Your task to perform on an android device: Clear the shopping cart on ebay. Image 0: 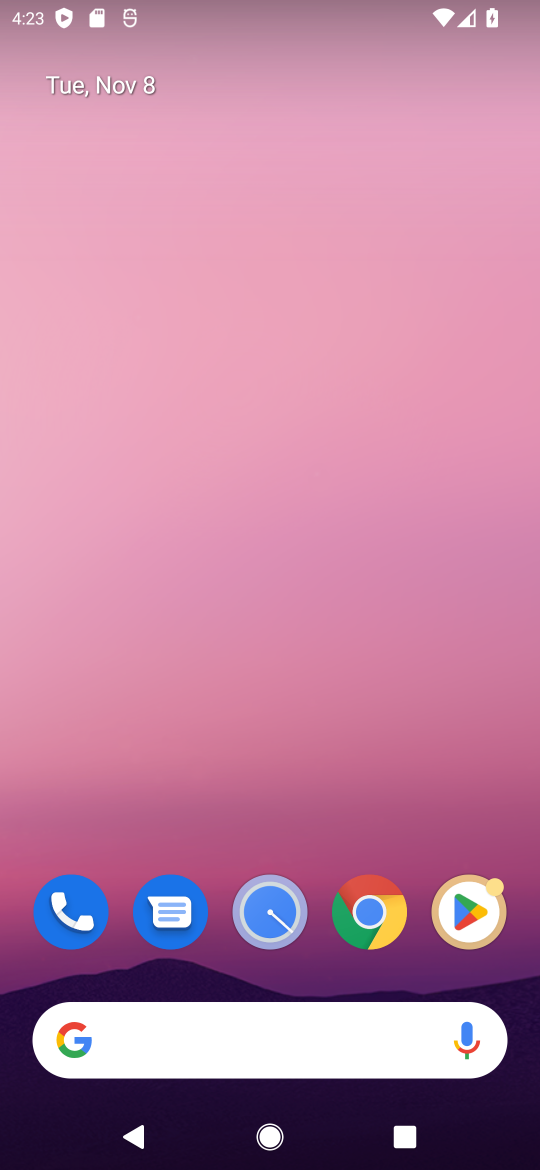
Step 0: click (364, 930)
Your task to perform on an android device: Clear the shopping cart on ebay. Image 1: 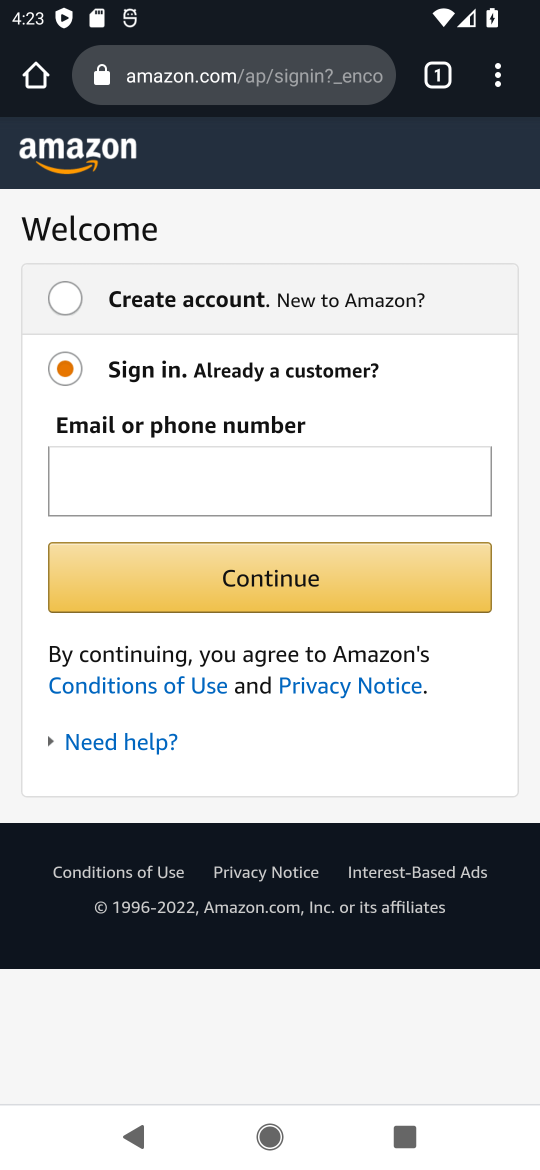
Step 1: click (439, 78)
Your task to perform on an android device: Clear the shopping cart on ebay. Image 2: 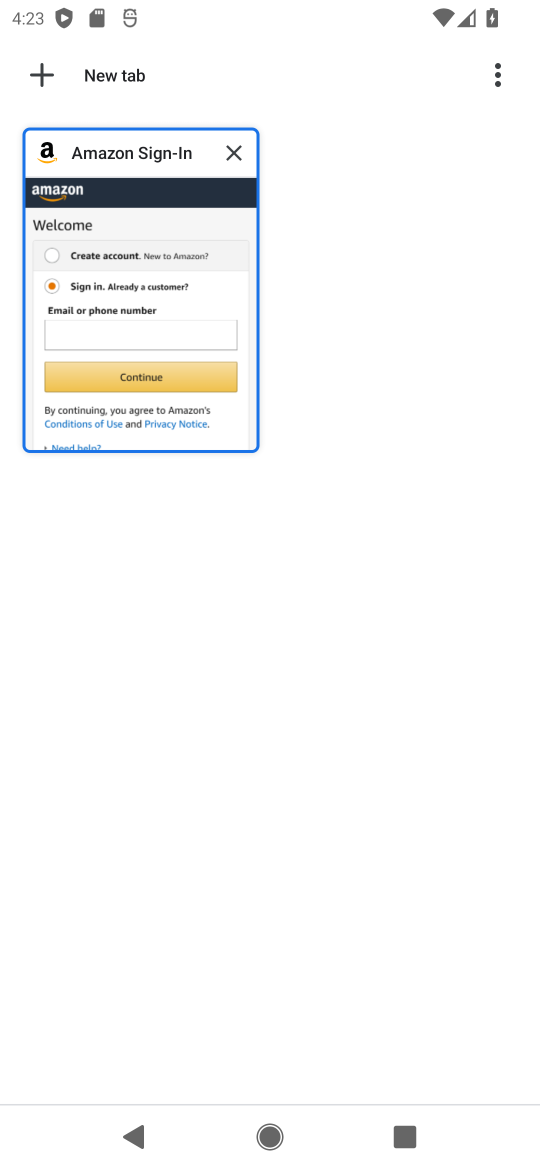
Step 2: click (42, 79)
Your task to perform on an android device: Clear the shopping cart on ebay. Image 3: 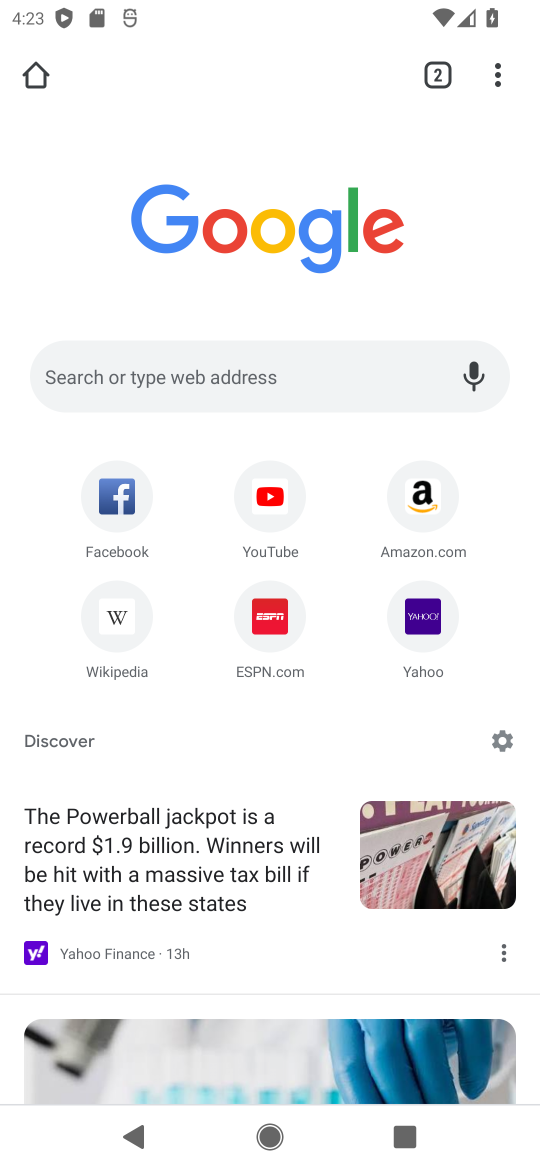
Step 3: click (220, 380)
Your task to perform on an android device: Clear the shopping cart on ebay. Image 4: 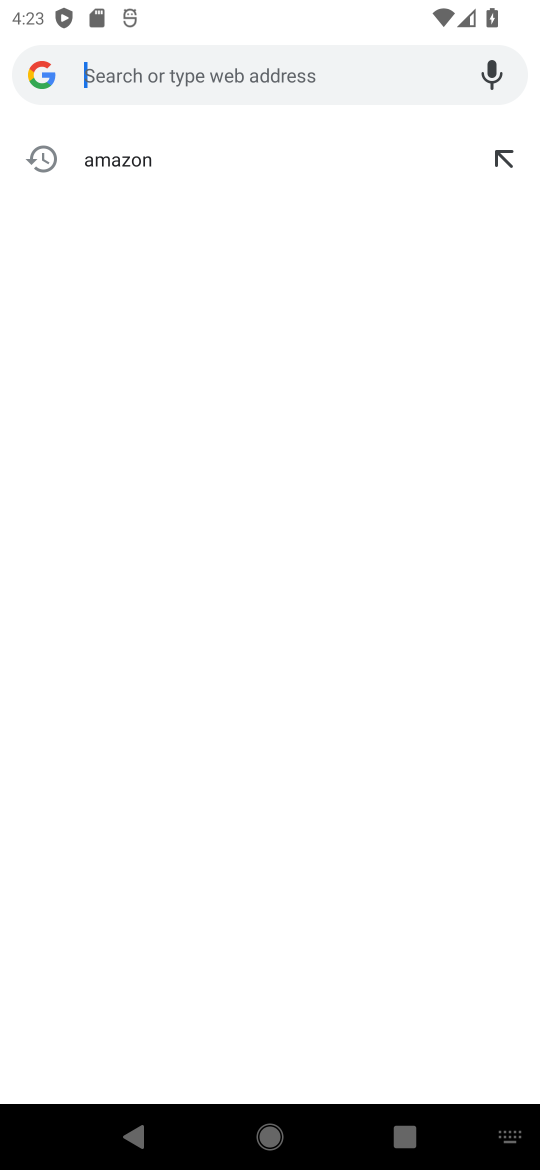
Step 4: type "ebay"
Your task to perform on an android device: Clear the shopping cart on ebay. Image 5: 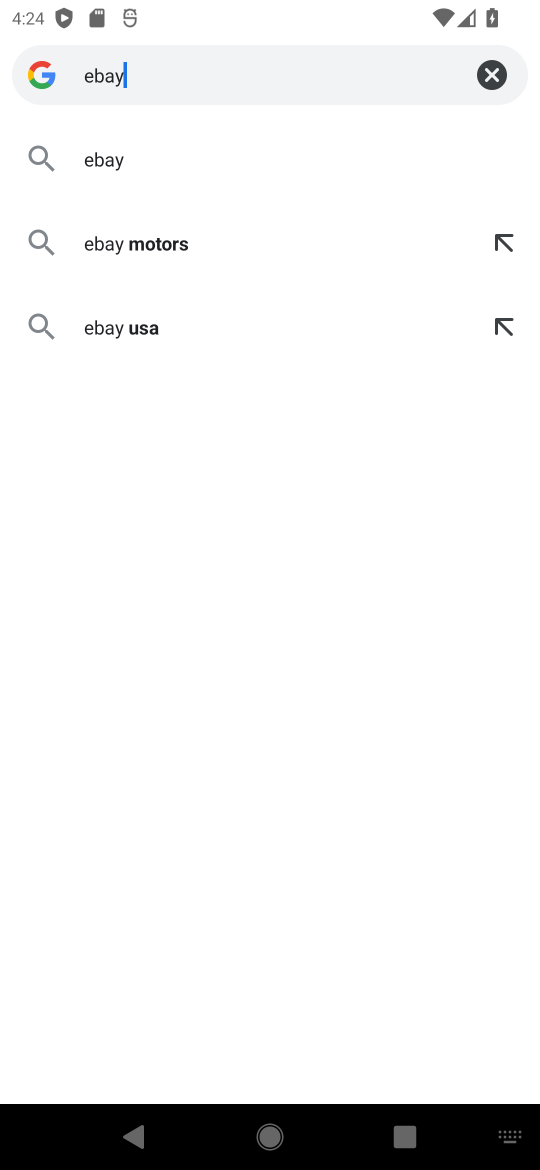
Step 5: click (94, 148)
Your task to perform on an android device: Clear the shopping cart on ebay. Image 6: 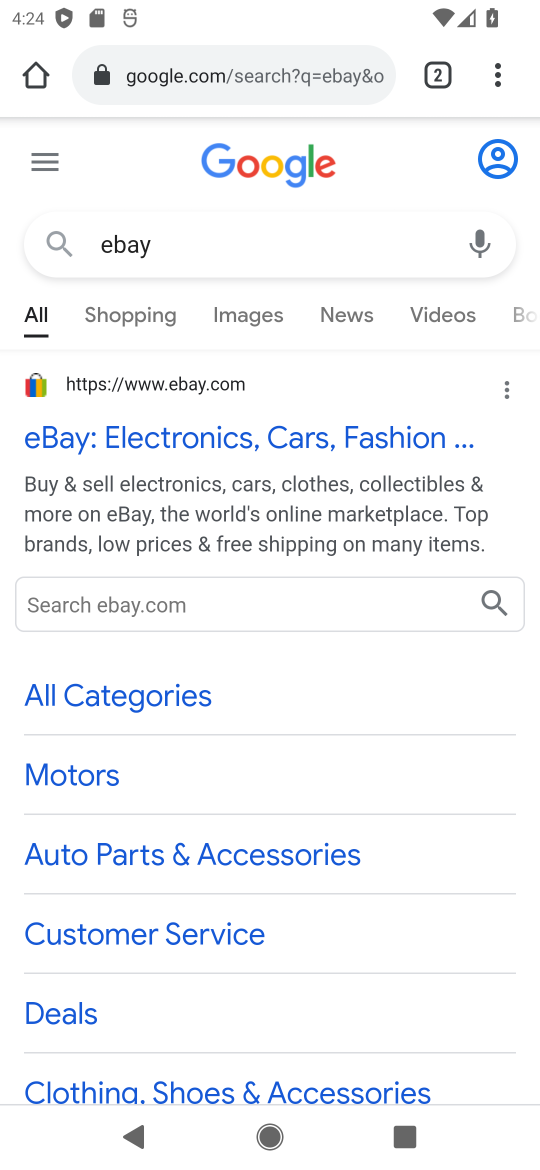
Step 6: click (172, 443)
Your task to perform on an android device: Clear the shopping cart on ebay. Image 7: 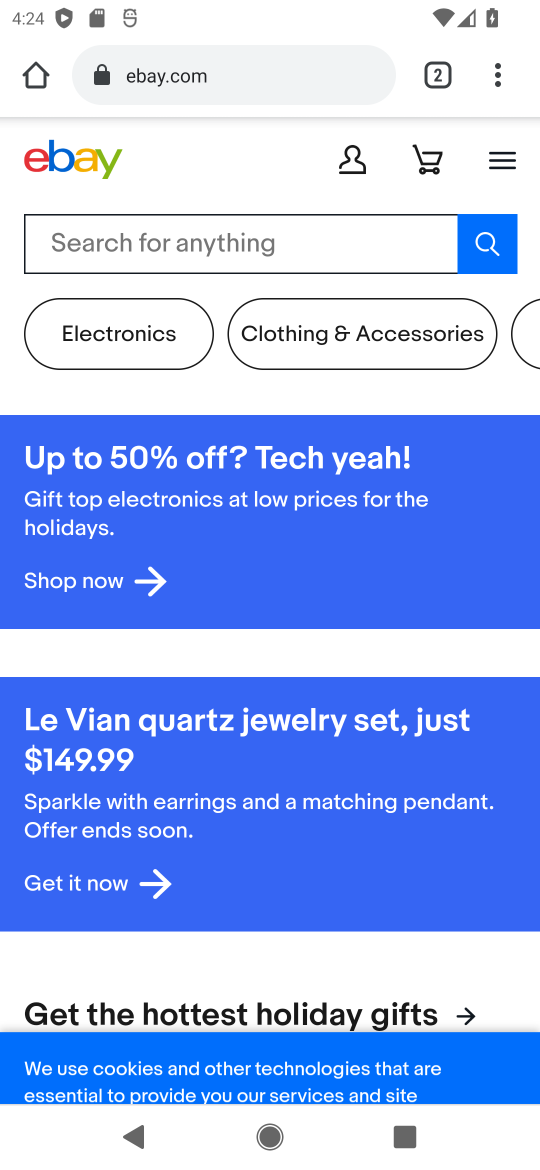
Step 7: task complete